Your task to perform on an android device: What's the weather going to be this weekend? Image 0: 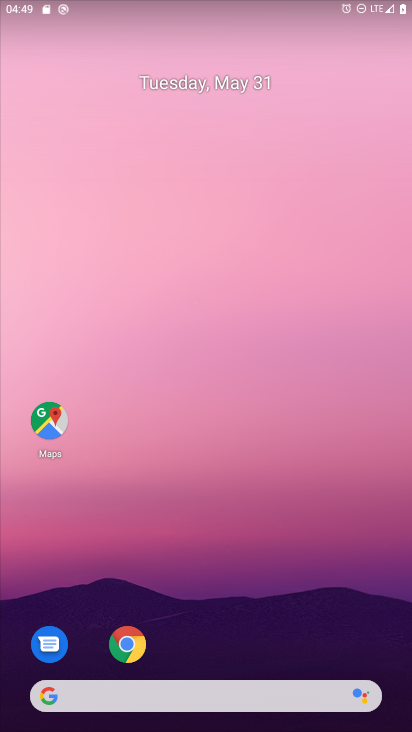
Step 0: click (129, 638)
Your task to perform on an android device: What's the weather going to be this weekend? Image 1: 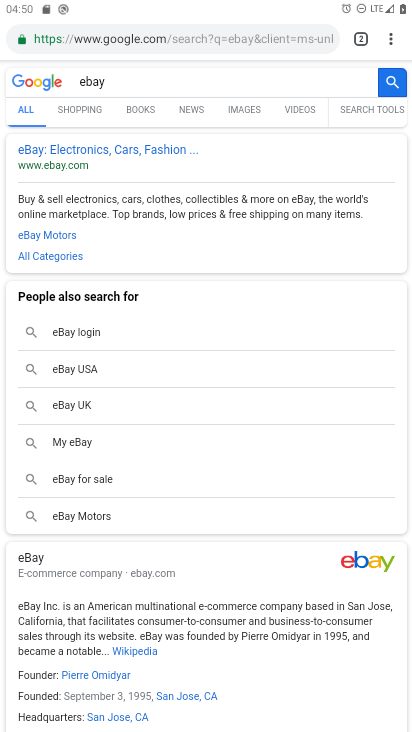
Step 1: click (151, 39)
Your task to perform on an android device: What's the weather going to be this weekend? Image 2: 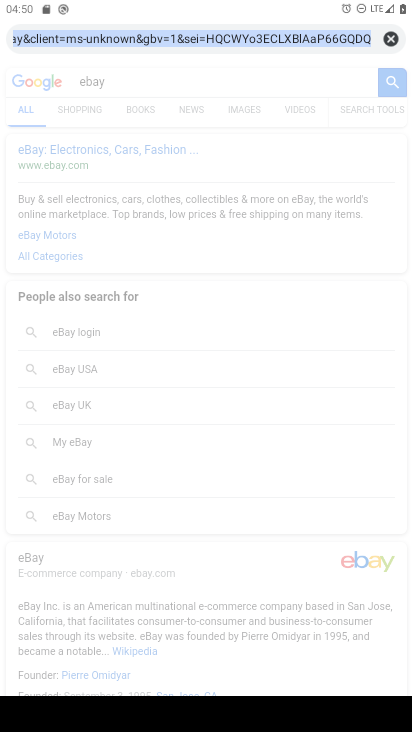
Step 2: type "weather"
Your task to perform on an android device: What's the weather going to be this weekend? Image 3: 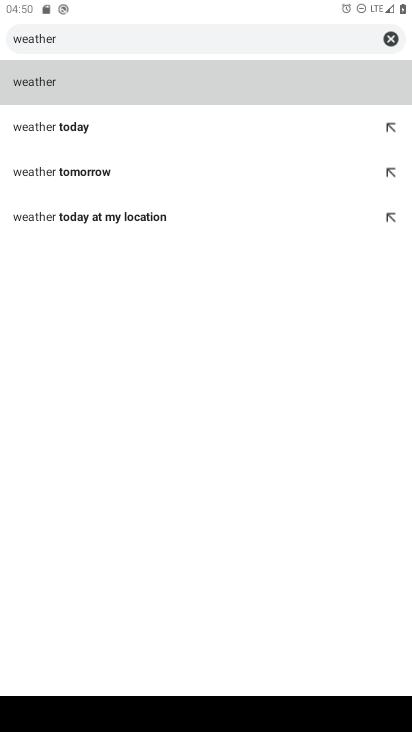
Step 3: click (46, 77)
Your task to perform on an android device: What's the weather going to be this weekend? Image 4: 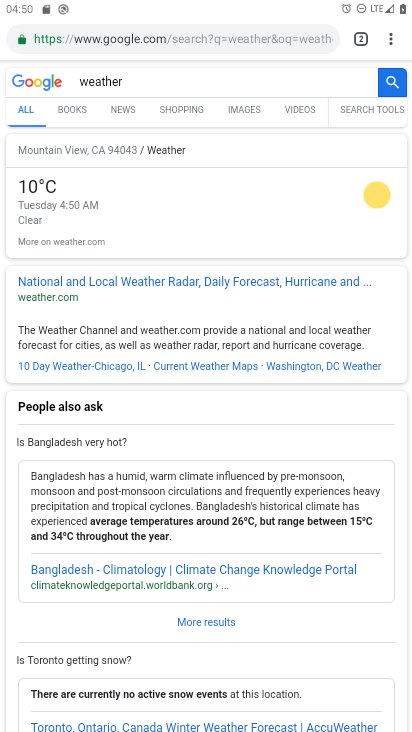
Step 4: click (63, 294)
Your task to perform on an android device: What's the weather going to be this weekend? Image 5: 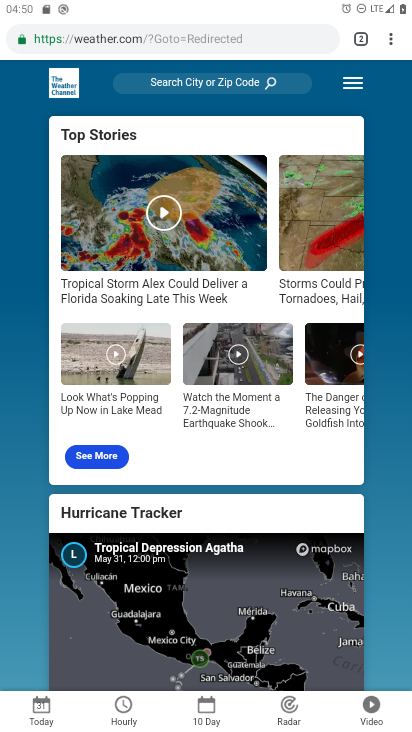
Step 5: click (206, 716)
Your task to perform on an android device: What's the weather going to be this weekend? Image 6: 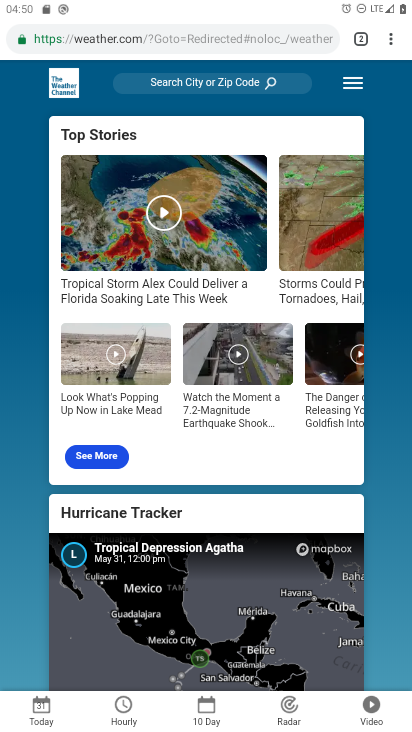
Step 6: click (219, 706)
Your task to perform on an android device: What's the weather going to be this weekend? Image 7: 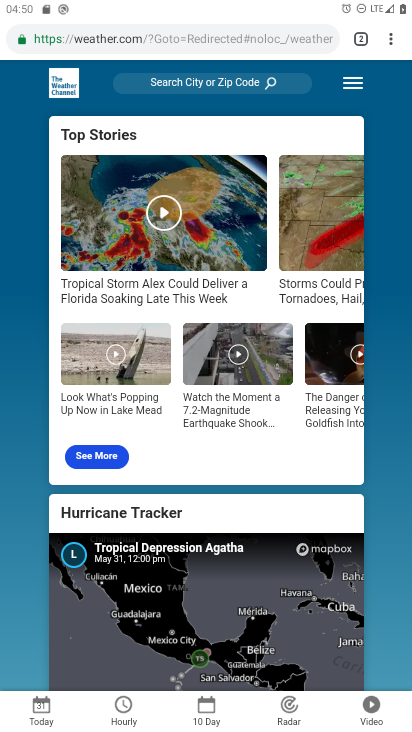
Step 7: drag from (336, 257) to (246, 713)
Your task to perform on an android device: What's the weather going to be this weekend? Image 8: 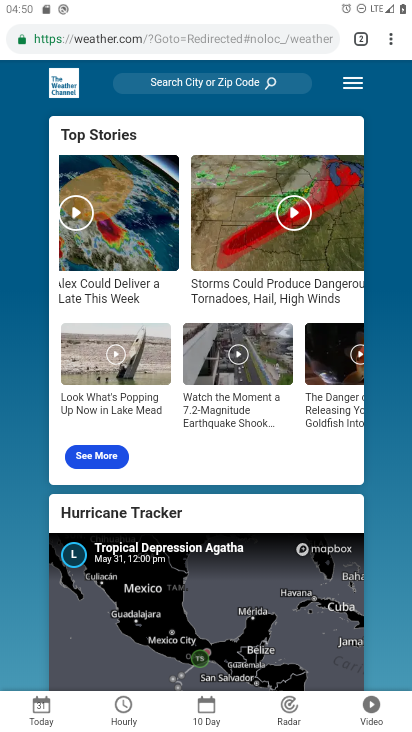
Step 8: drag from (244, 371) to (273, 643)
Your task to perform on an android device: What's the weather going to be this weekend? Image 9: 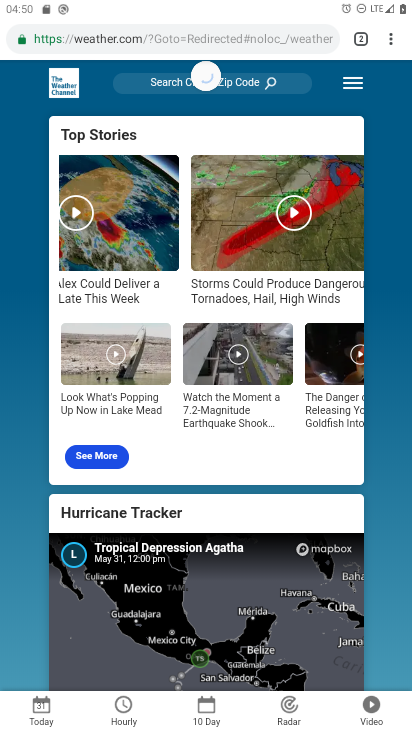
Step 9: drag from (283, 614) to (334, 186)
Your task to perform on an android device: What's the weather going to be this weekend? Image 10: 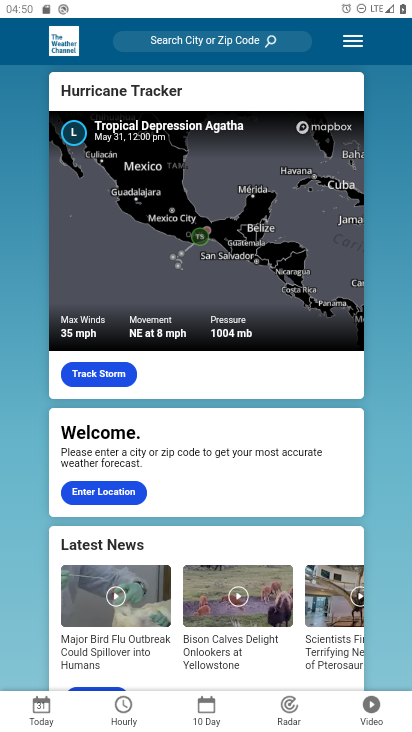
Step 10: click (368, 40)
Your task to perform on an android device: What's the weather going to be this weekend? Image 11: 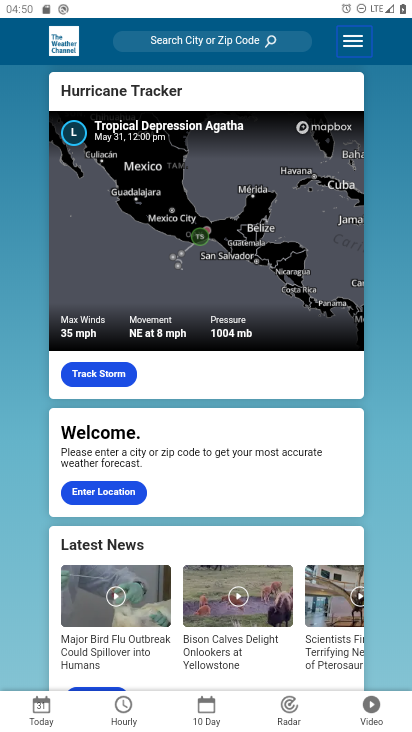
Step 11: click (348, 49)
Your task to perform on an android device: What's the weather going to be this weekend? Image 12: 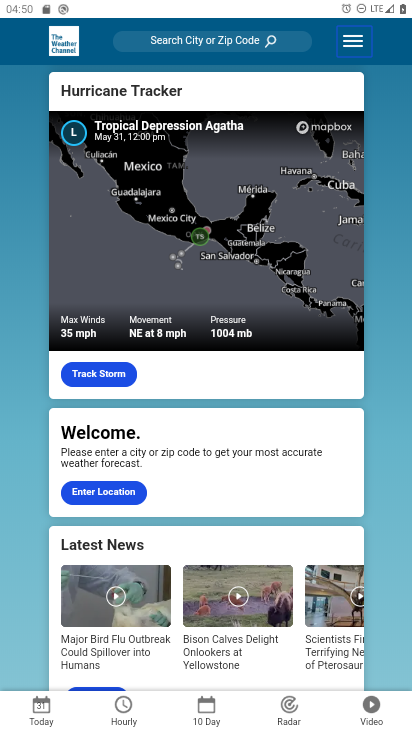
Step 12: click (353, 42)
Your task to perform on an android device: What's the weather going to be this weekend? Image 13: 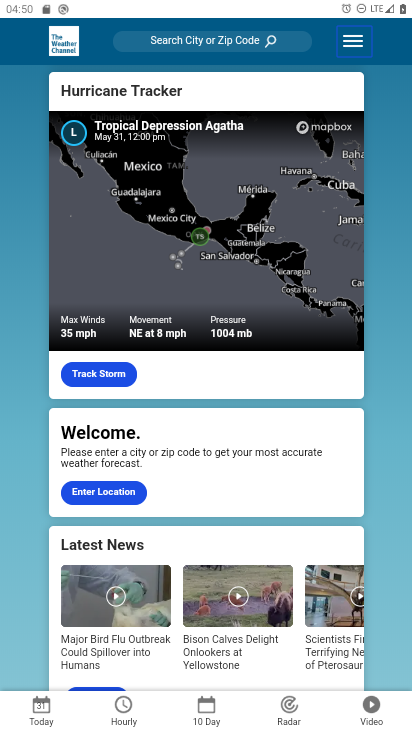
Step 13: drag from (303, 556) to (359, 80)
Your task to perform on an android device: What's the weather going to be this weekend? Image 14: 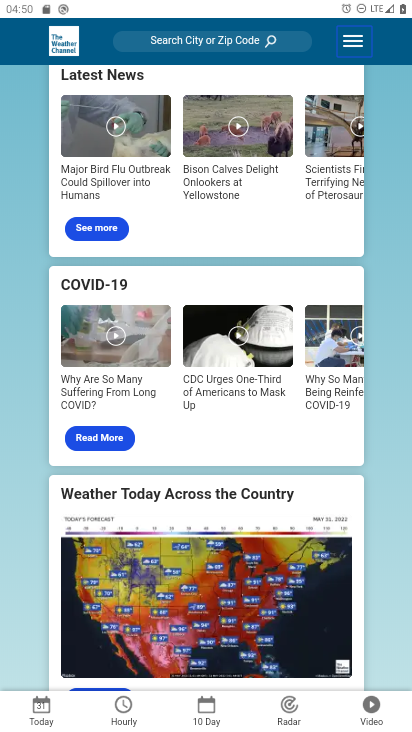
Step 14: press back button
Your task to perform on an android device: What's the weather going to be this weekend? Image 15: 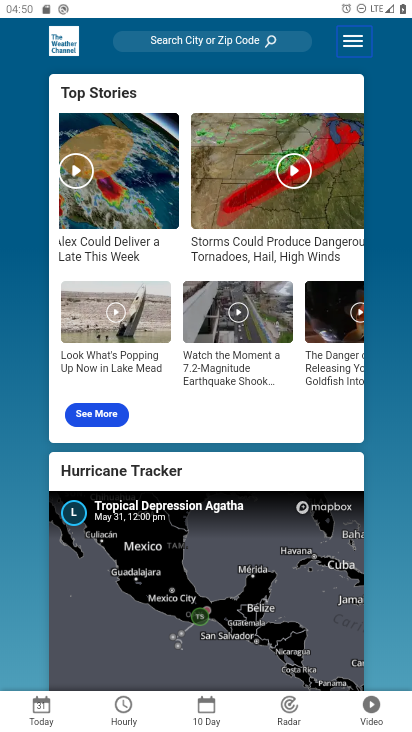
Step 15: press back button
Your task to perform on an android device: What's the weather going to be this weekend? Image 16: 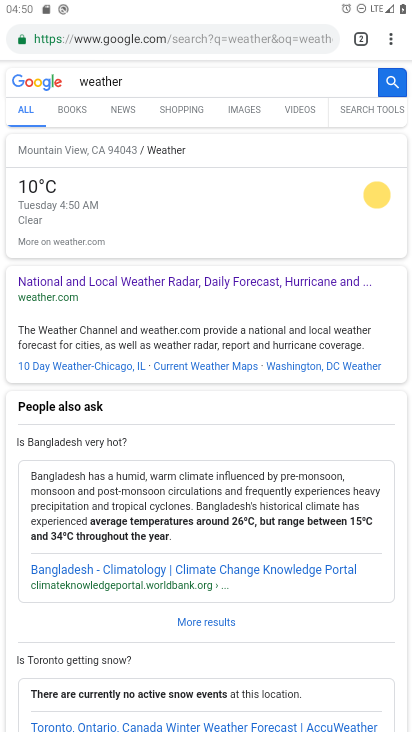
Step 16: click (208, 78)
Your task to perform on an android device: What's the weather going to be this weekend? Image 17: 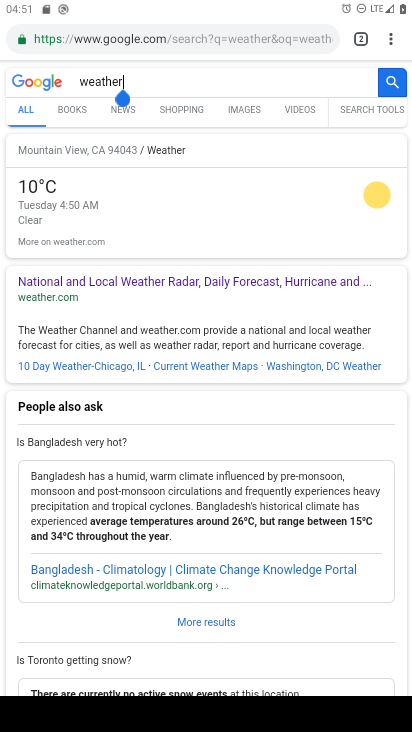
Step 17: type " weekend"
Your task to perform on an android device: What's the weather going to be this weekend? Image 18: 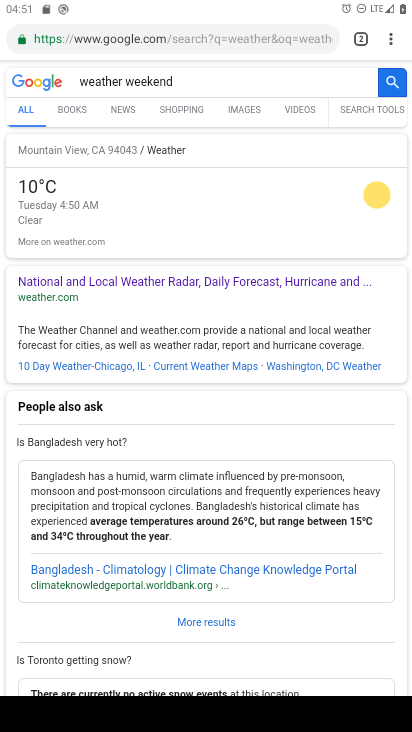
Step 18: click (382, 85)
Your task to perform on an android device: What's the weather going to be this weekend? Image 19: 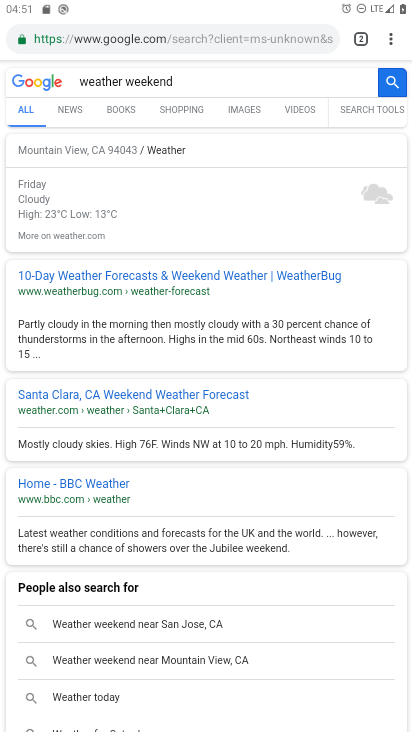
Step 19: click (243, 274)
Your task to perform on an android device: What's the weather going to be this weekend? Image 20: 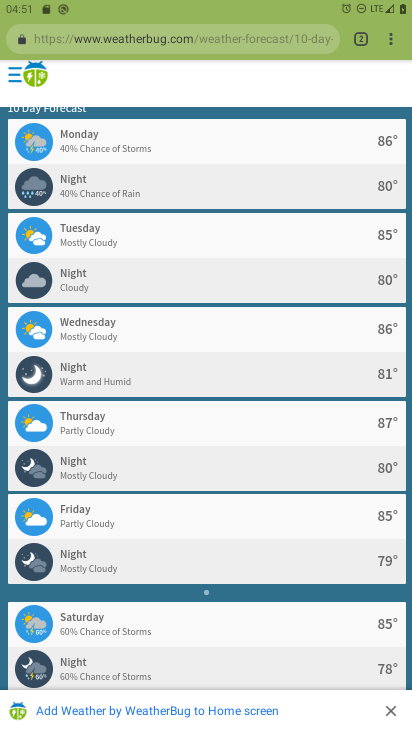
Step 20: task complete